Your task to perform on an android device: What's the weather going to be tomorrow? Image 0: 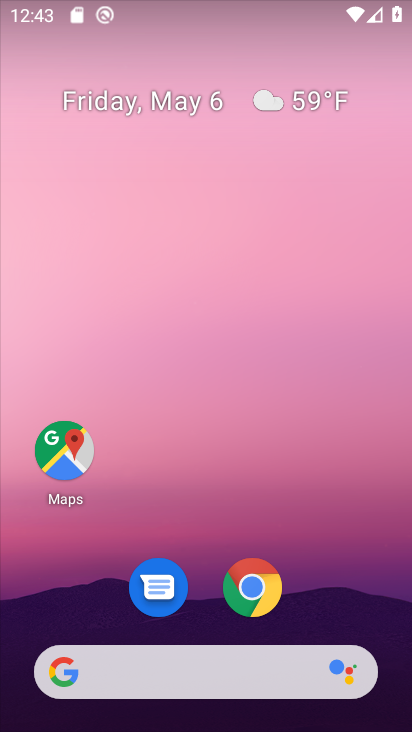
Step 0: click (311, 100)
Your task to perform on an android device: What's the weather going to be tomorrow? Image 1: 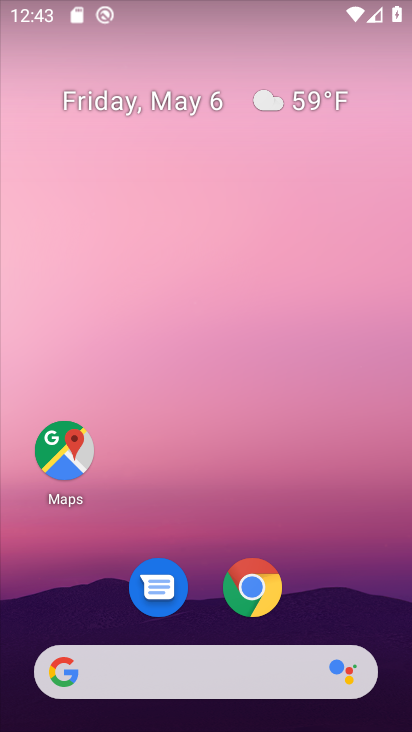
Step 1: click (293, 95)
Your task to perform on an android device: What's the weather going to be tomorrow? Image 2: 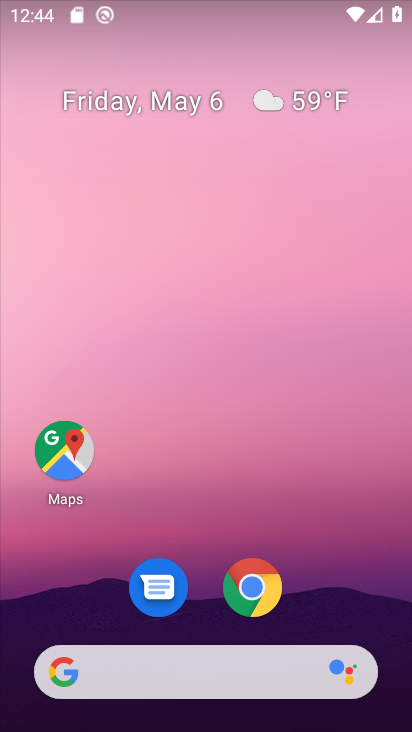
Step 2: click (275, 100)
Your task to perform on an android device: What's the weather going to be tomorrow? Image 3: 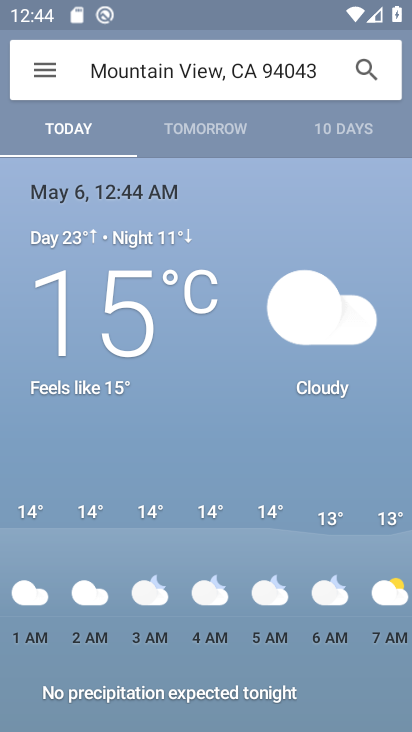
Step 3: click (199, 128)
Your task to perform on an android device: What's the weather going to be tomorrow? Image 4: 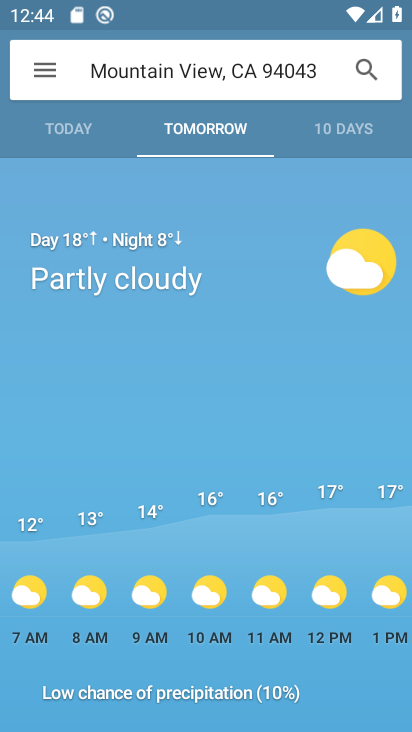
Step 4: task complete